Your task to perform on an android device: Open calendar and show me the third week of next month Image 0: 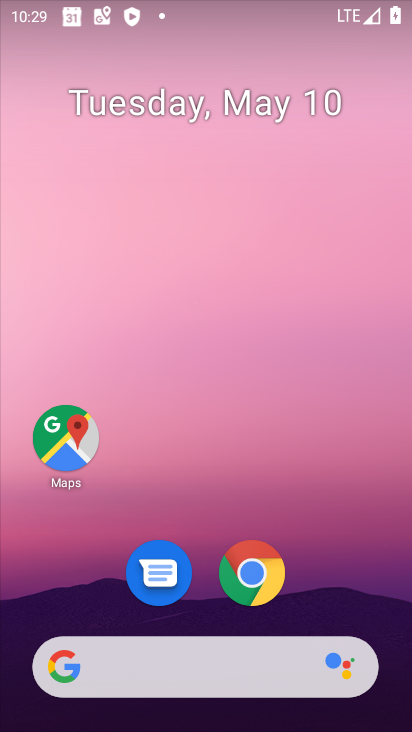
Step 0: drag from (330, 541) to (232, 95)
Your task to perform on an android device: Open calendar and show me the third week of next month Image 1: 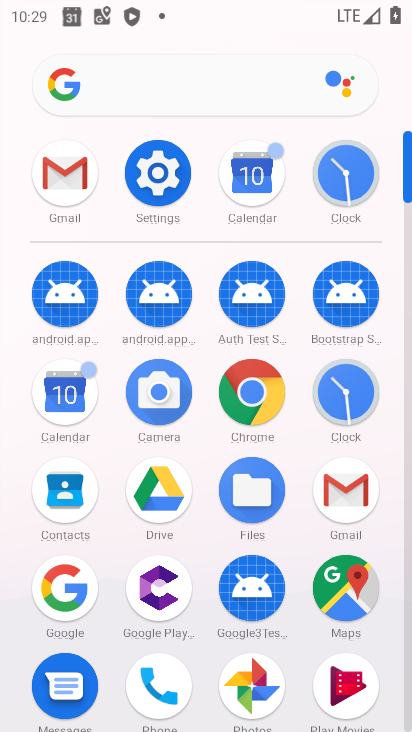
Step 1: click (54, 383)
Your task to perform on an android device: Open calendar and show me the third week of next month Image 2: 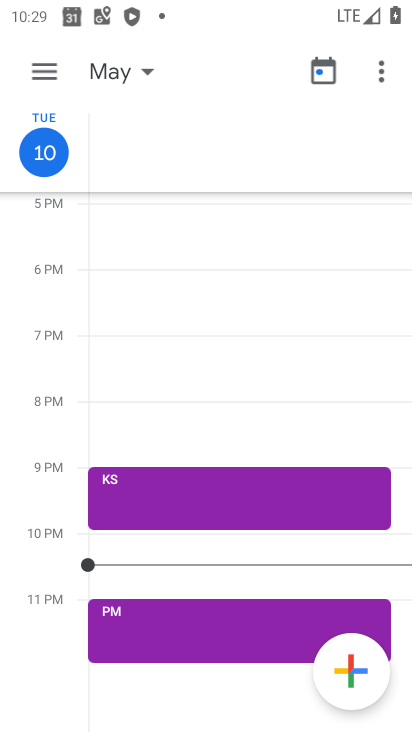
Step 2: click (34, 70)
Your task to perform on an android device: Open calendar and show me the third week of next month Image 3: 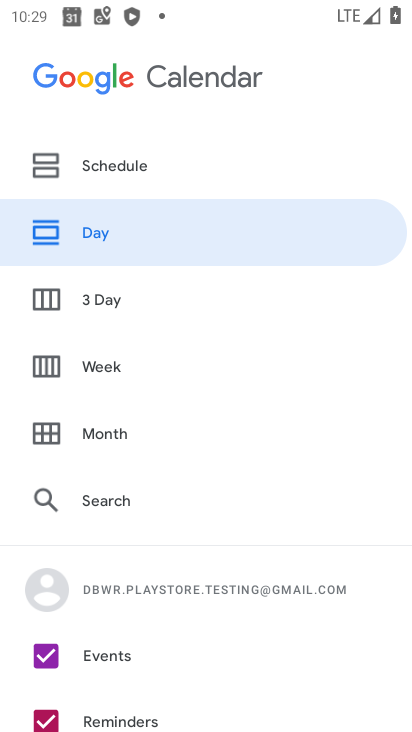
Step 3: click (104, 372)
Your task to perform on an android device: Open calendar and show me the third week of next month Image 4: 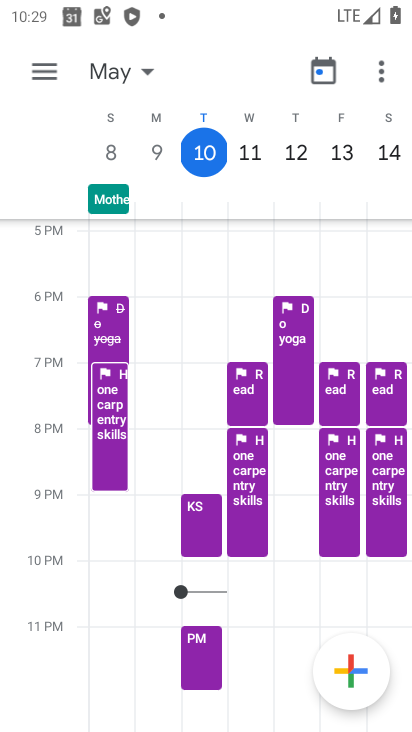
Step 4: click (138, 69)
Your task to perform on an android device: Open calendar and show me the third week of next month Image 5: 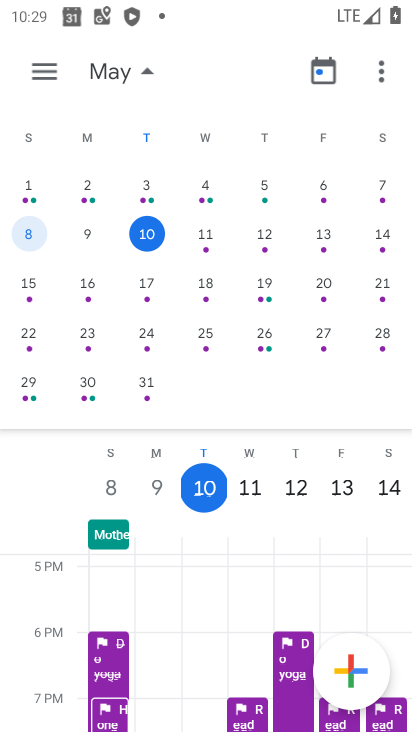
Step 5: drag from (364, 273) to (21, 234)
Your task to perform on an android device: Open calendar and show me the third week of next month Image 6: 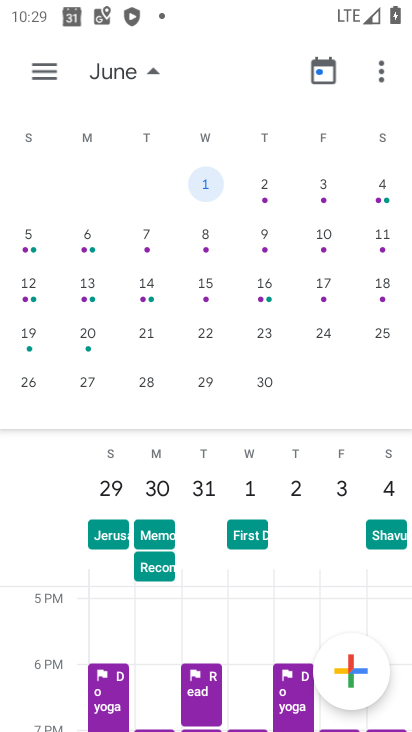
Step 6: click (203, 282)
Your task to perform on an android device: Open calendar and show me the third week of next month Image 7: 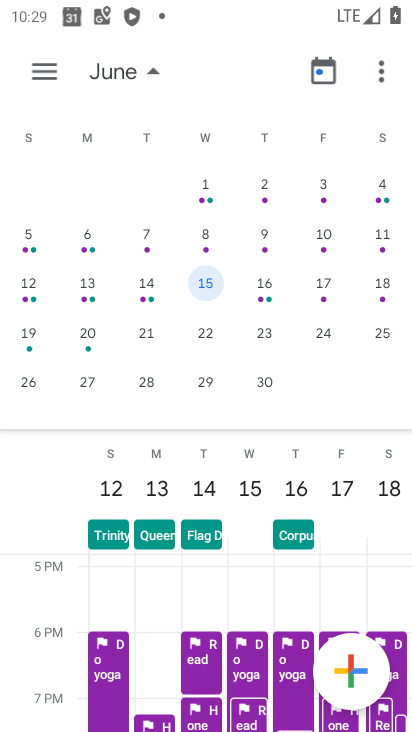
Step 7: task complete